Your task to perform on an android device: Show me popular games on the Play Store Image 0: 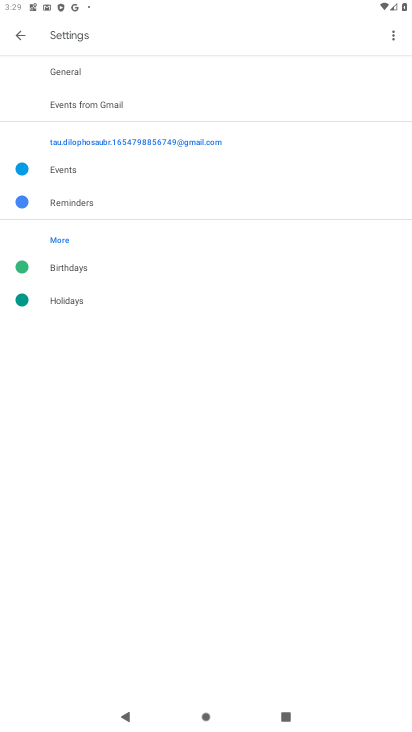
Step 0: press home button
Your task to perform on an android device: Show me popular games on the Play Store Image 1: 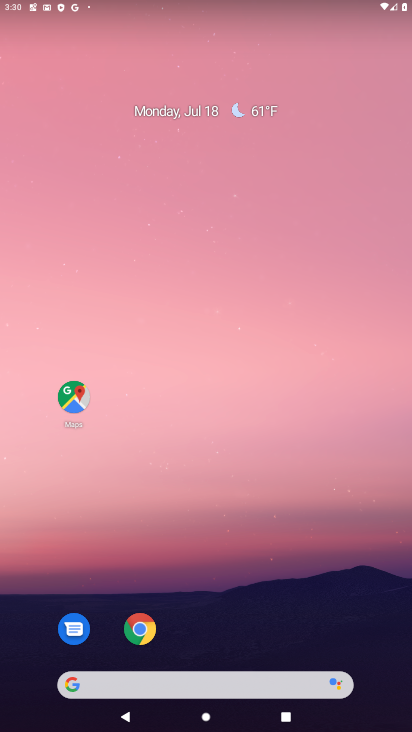
Step 1: drag from (154, 674) to (154, 357)
Your task to perform on an android device: Show me popular games on the Play Store Image 2: 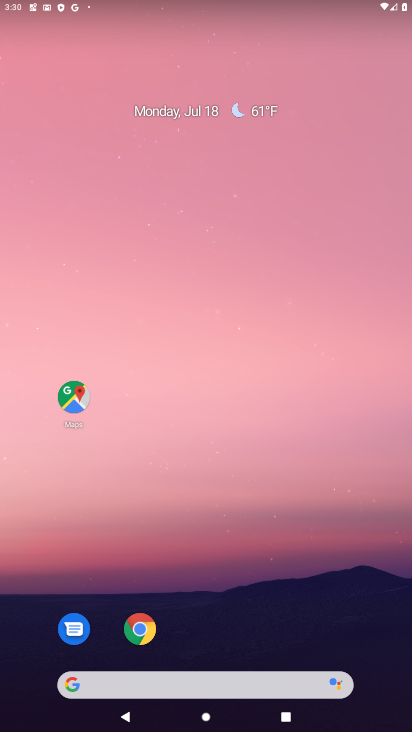
Step 2: drag from (234, 672) to (218, 266)
Your task to perform on an android device: Show me popular games on the Play Store Image 3: 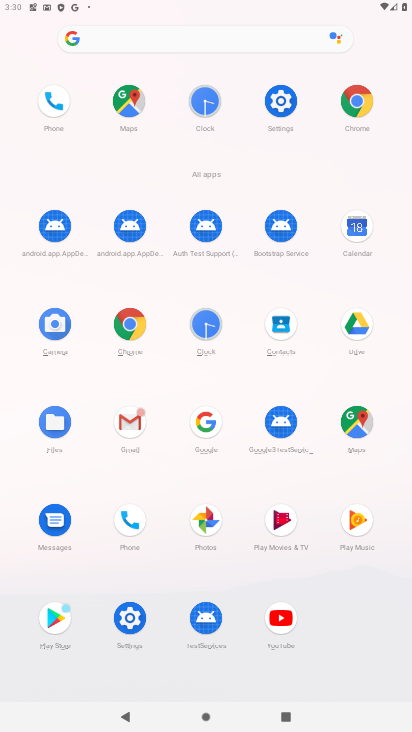
Step 3: click (58, 623)
Your task to perform on an android device: Show me popular games on the Play Store Image 4: 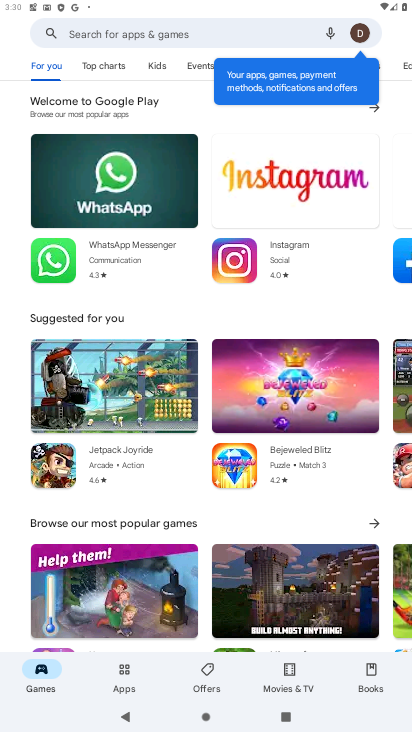
Step 4: click (163, 28)
Your task to perform on an android device: Show me popular games on the Play Store Image 5: 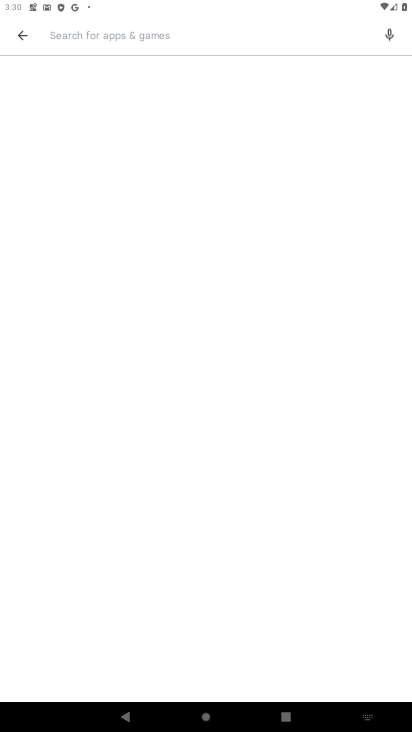
Step 5: type "popular games"
Your task to perform on an android device: Show me popular games on the Play Store Image 6: 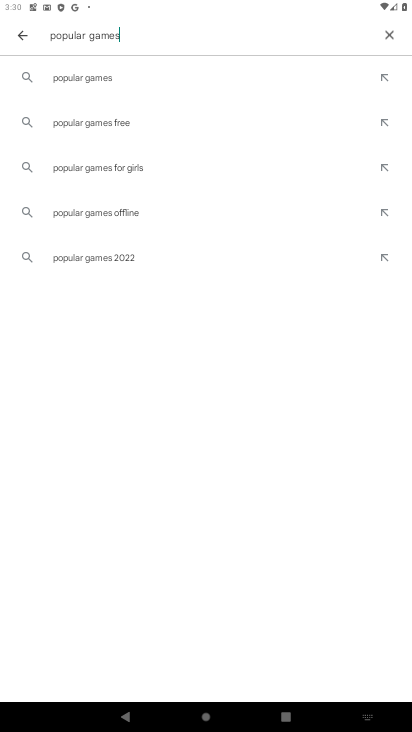
Step 6: click (66, 74)
Your task to perform on an android device: Show me popular games on the Play Store Image 7: 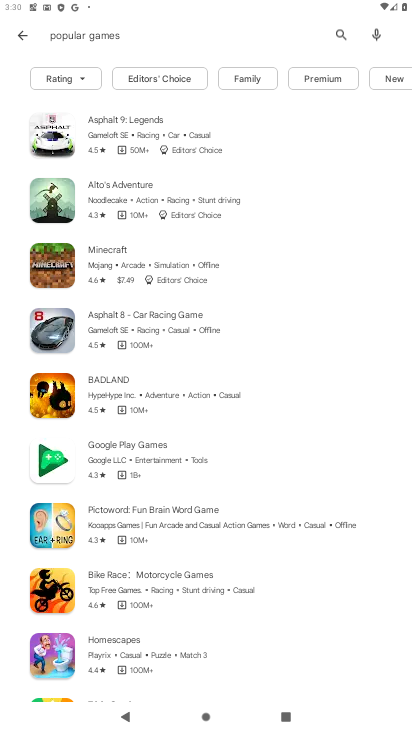
Step 7: task complete